Your task to perform on an android device: empty trash in the gmail app Image 0: 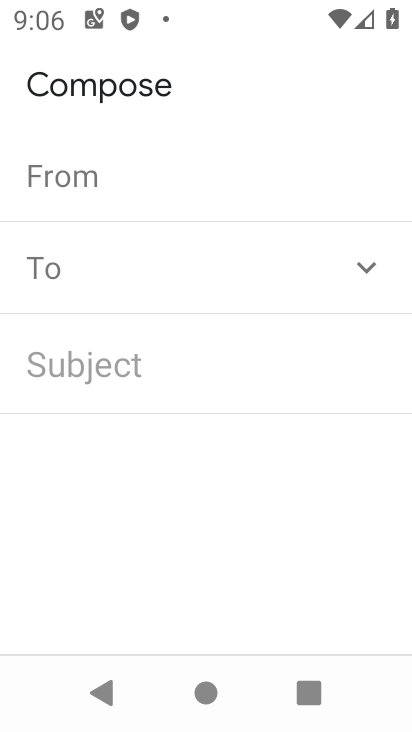
Step 0: click (271, 470)
Your task to perform on an android device: empty trash in the gmail app Image 1: 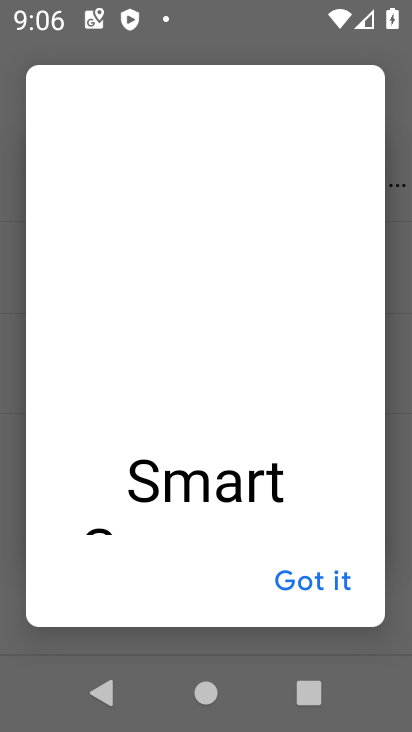
Step 1: press home button
Your task to perform on an android device: empty trash in the gmail app Image 2: 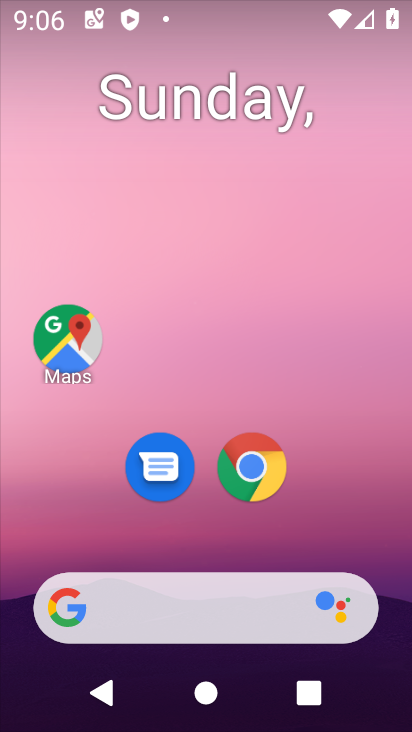
Step 2: drag from (354, 513) to (306, 127)
Your task to perform on an android device: empty trash in the gmail app Image 3: 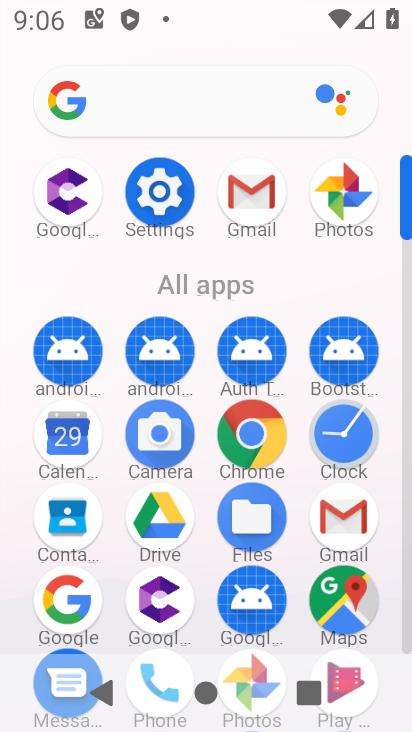
Step 3: click (260, 198)
Your task to perform on an android device: empty trash in the gmail app Image 4: 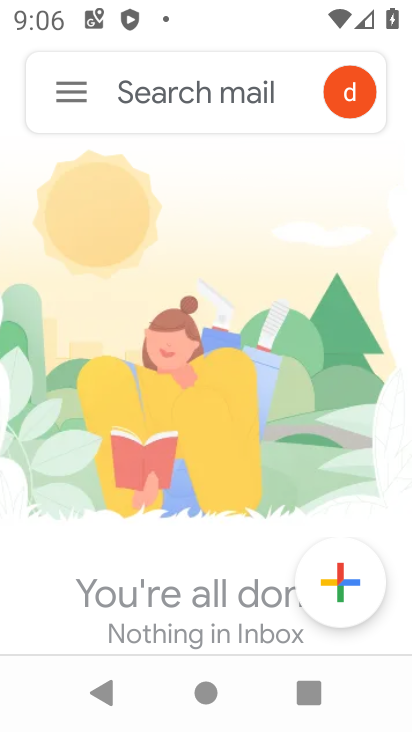
Step 4: click (70, 109)
Your task to perform on an android device: empty trash in the gmail app Image 5: 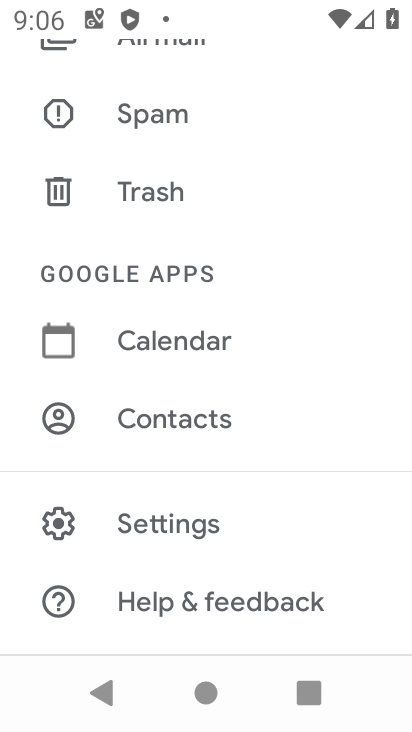
Step 5: click (142, 183)
Your task to perform on an android device: empty trash in the gmail app Image 6: 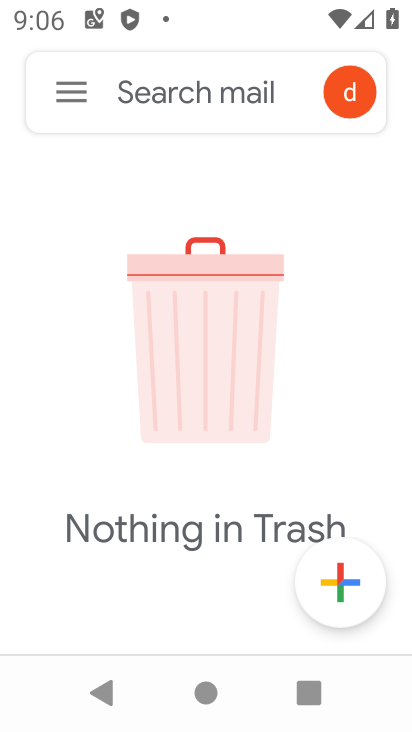
Step 6: task complete